Your task to perform on an android device: Check the weather Image 0: 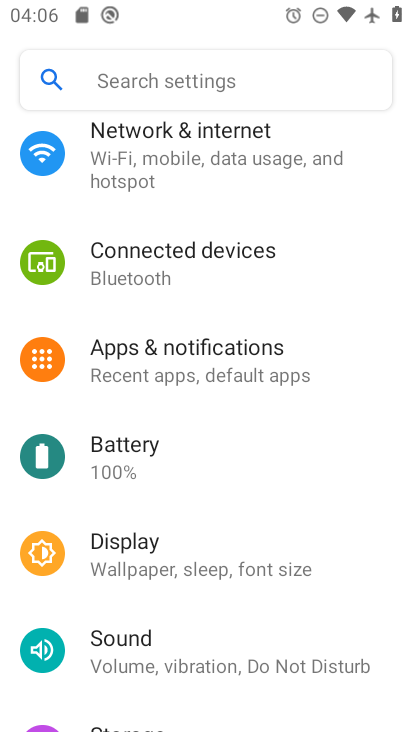
Step 0: press home button
Your task to perform on an android device: Check the weather Image 1: 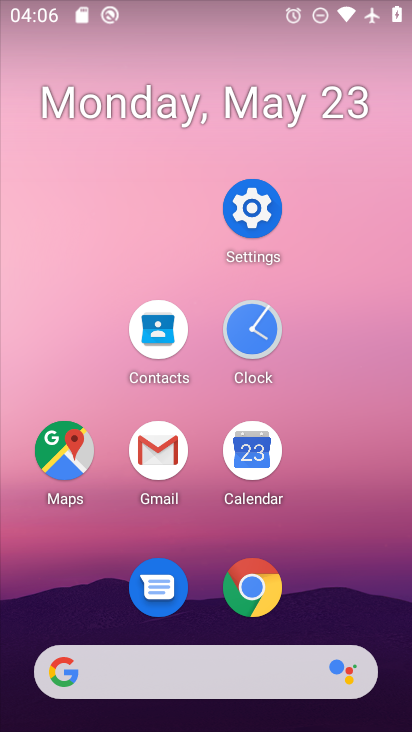
Step 1: click (161, 657)
Your task to perform on an android device: Check the weather Image 2: 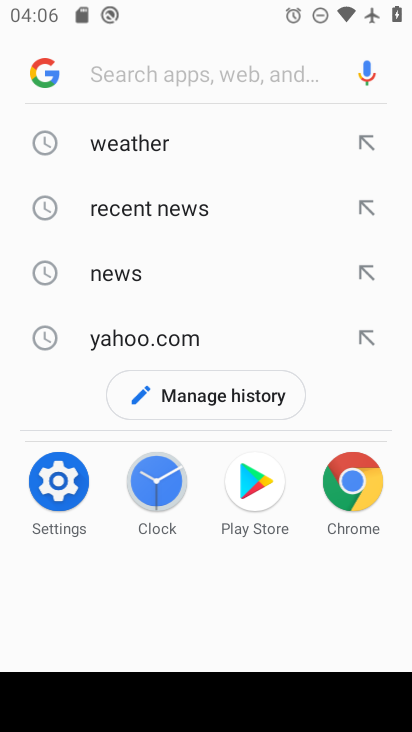
Step 2: click (149, 158)
Your task to perform on an android device: Check the weather Image 3: 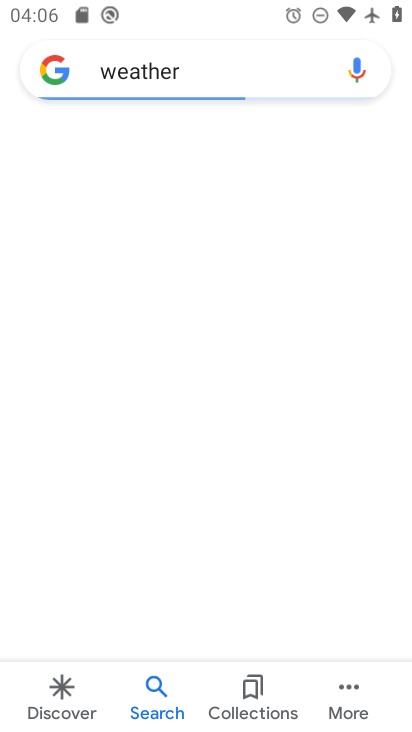
Step 3: task complete